Your task to perform on an android device: see sites visited before in the chrome app Image 0: 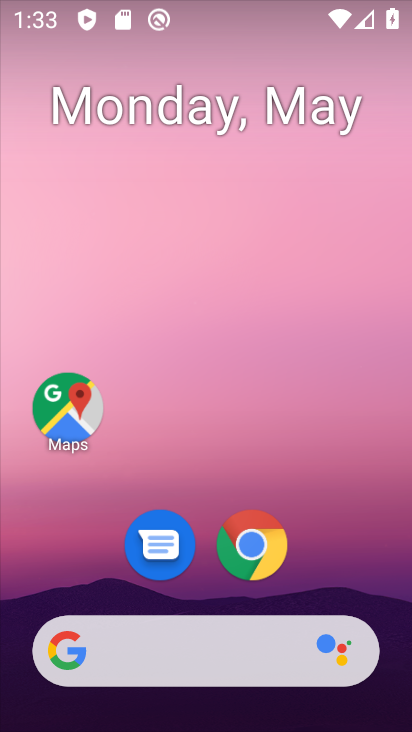
Step 0: click (258, 552)
Your task to perform on an android device: see sites visited before in the chrome app Image 1: 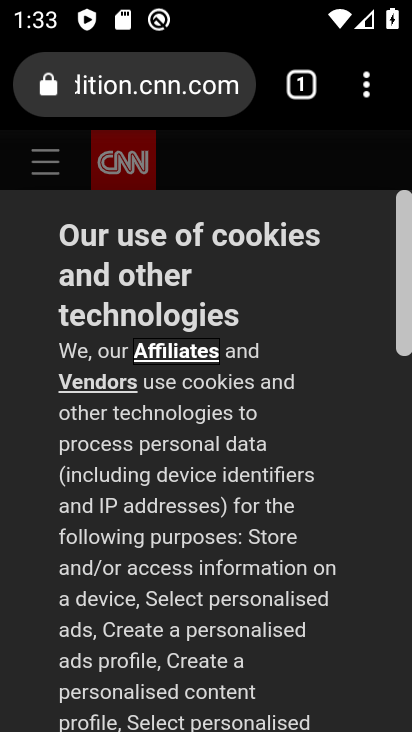
Step 1: click (364, 82)
Your task to perform on an android device: see sites visited before in the chrome app Image 2: 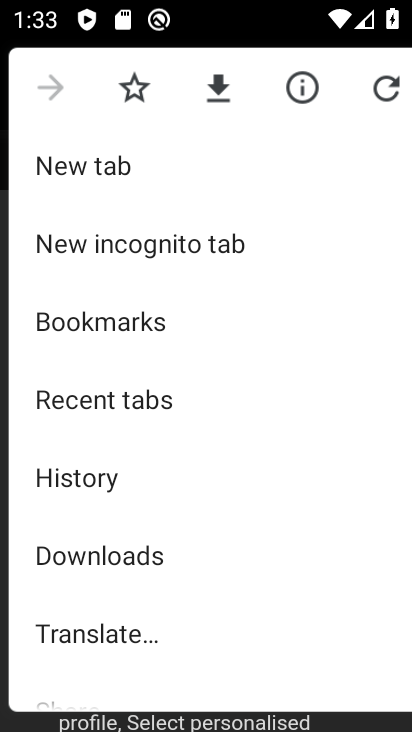
Step 2: drag from (232, 626) to (296, 116)
Your task to perform on an android device: see sites visited before in the chrome app Image 3: 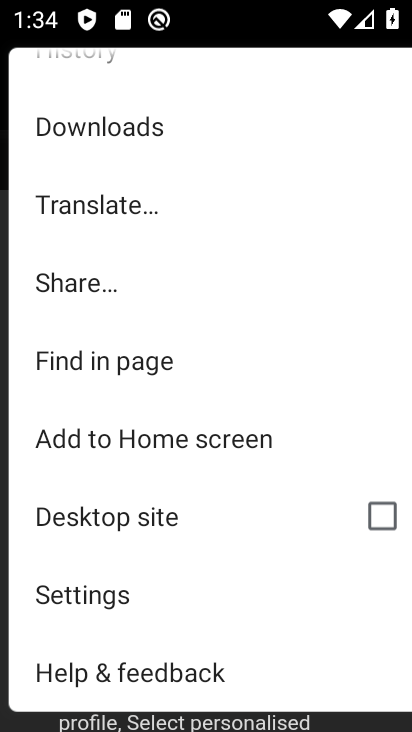
Step 3: drag from (172, 151) to (144, 706)
Your task to perform on an android device: see sites visited before in the chrome app Image 4: 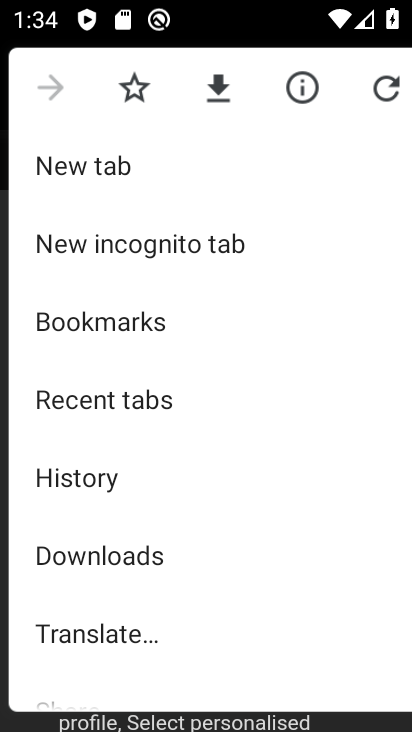
Step 4: click (148, 391)
Your task to perform on an android device: see sites visited before in the chrome app Image 5: 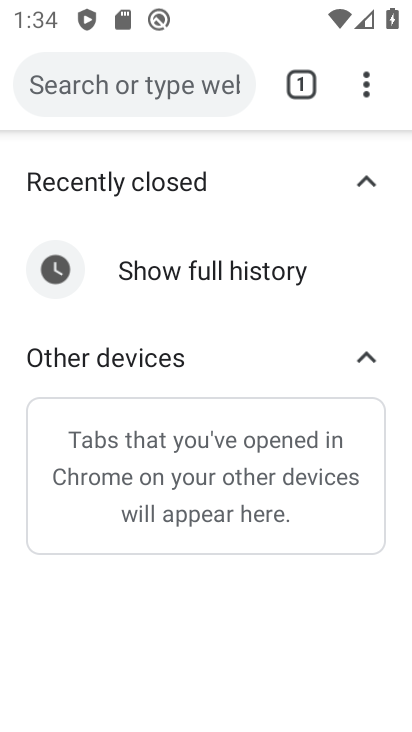
Step 5: task complete